Your task to perform on an android device: turn off sleep mode Image 0: 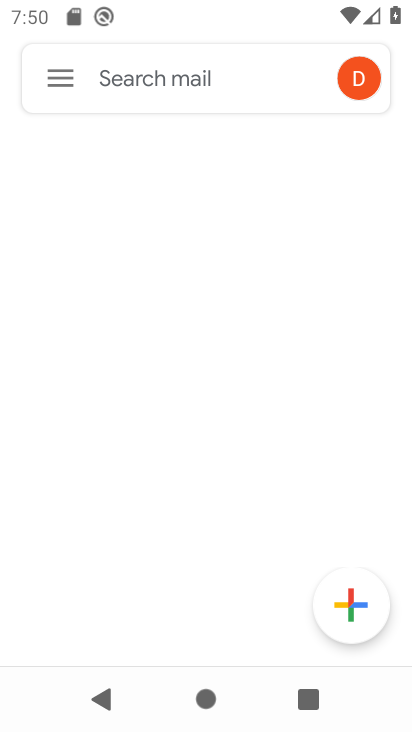
Step 0: press home button
Your task to perform on an android device: turn off sleep mode Image 1: 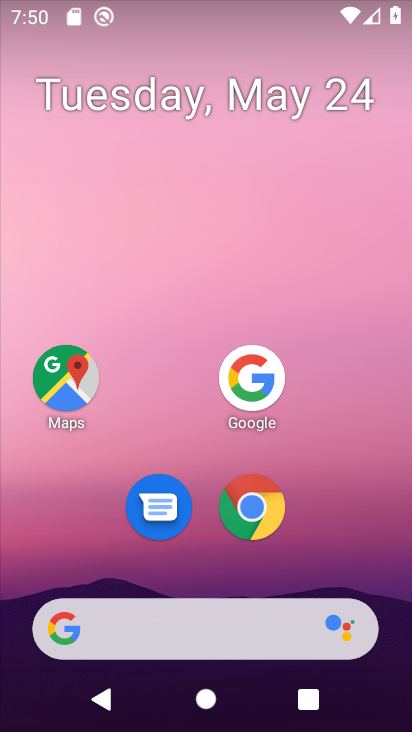
Step 1: drag from (171, 619) to (337, 149)
Your task to perform on an android device: turn off sleep mode Image 2: 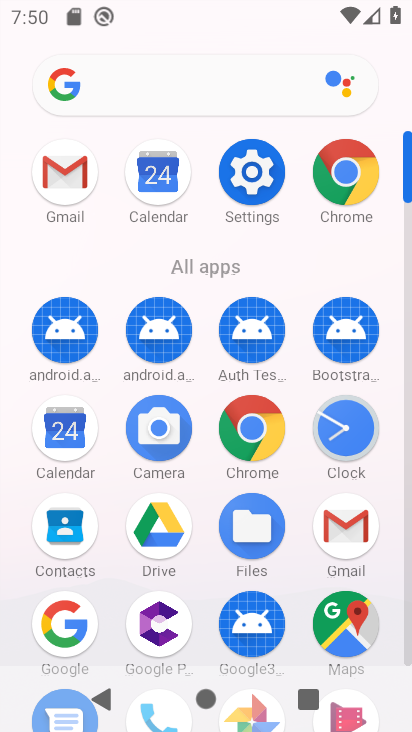
Step 2: click (248, 179)
Your task to perform on an android device: turn off sleep mode Image 3: 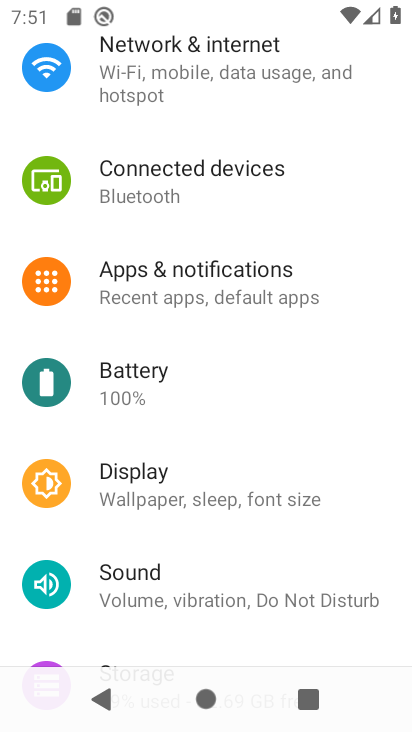
Step 3: click (181, 501)
Your task to perform on an android device: turn off sleep mode Image 4: 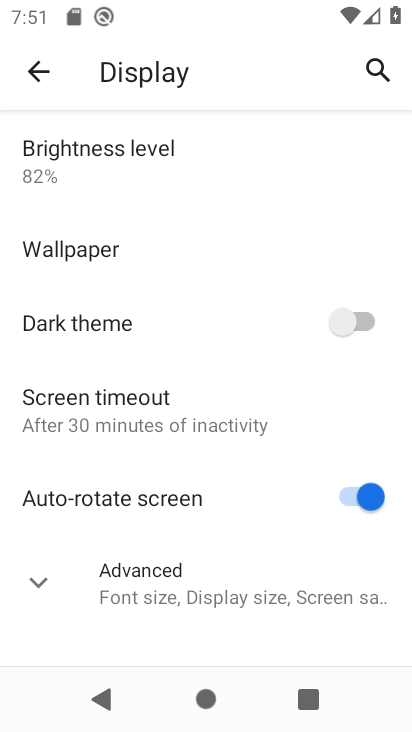
Step 4: task complete